Your task to perform on an android device: Open internet settings Image 0: 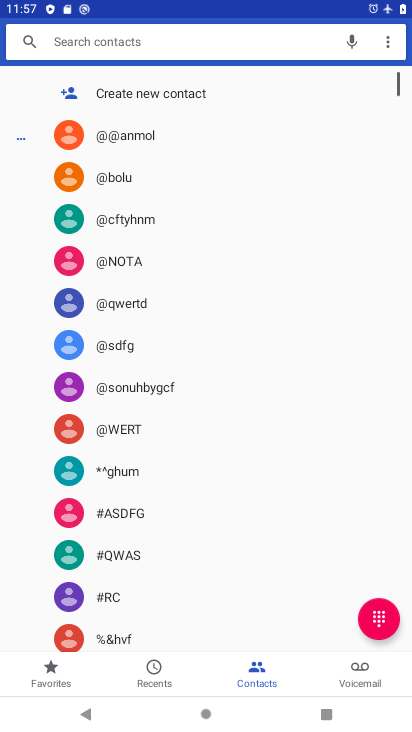
Step 0: press home button
Your task to perform on an android device: Open internet settings Image 1: 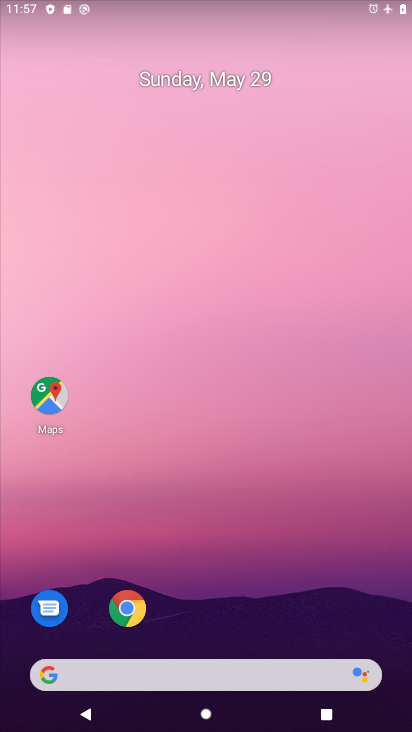
Step 1: drag from (210, 641) to (118, 84)
Your task to perform on an android device: Open internet settings Image 2: 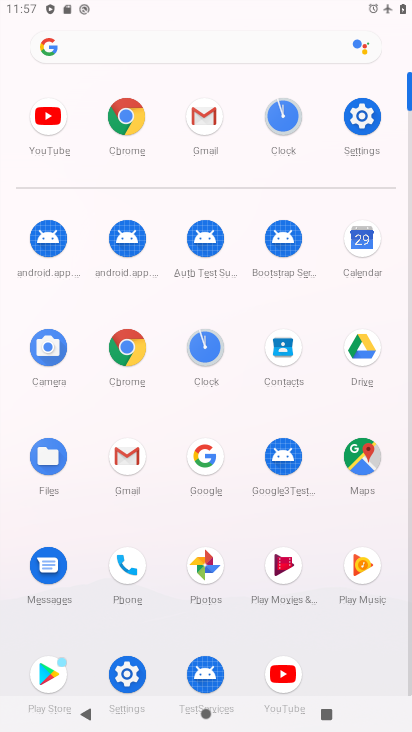
Step 2: click (355, 115)
Your task to perform on an android device: Open internet settings Image 3: 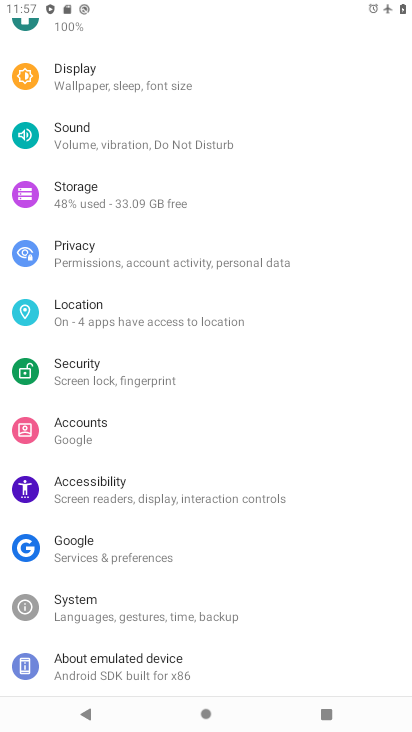
Step 3: drag from (85, 109) to (77, 339)
Your task to perform on an android device: Open internet settings Image 4: 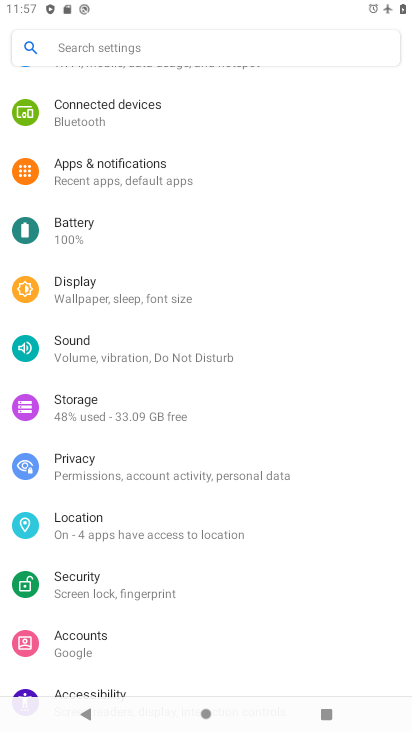
Step 4: drag from (105, 100) to (101, 337)
Your task to perform on an android device: Open internet settings Image 5: 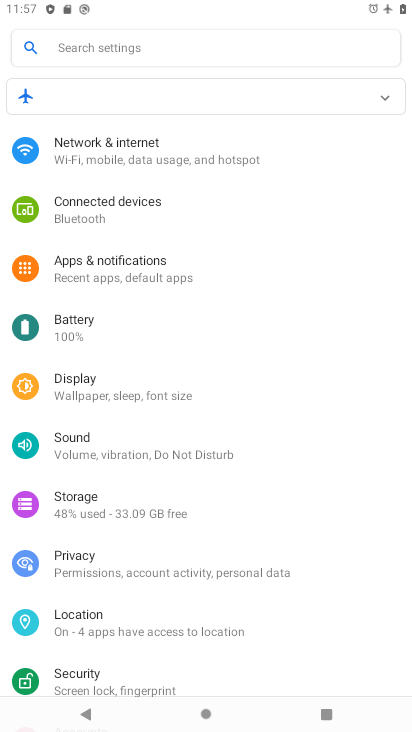
Step 5: click (104, 145)
Your task to perform on an android device: Open internet settings Image 6: 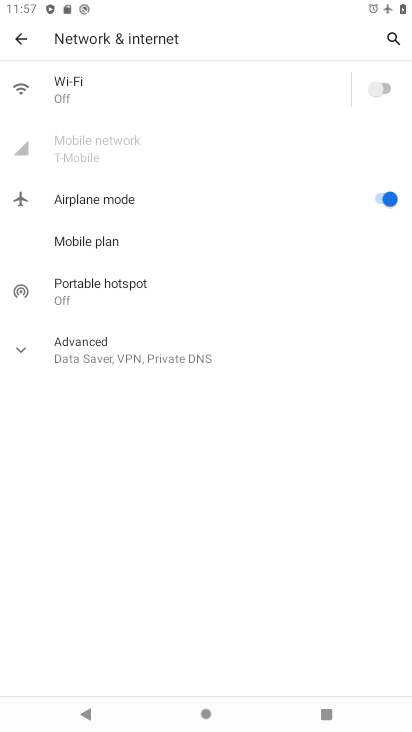
Step 6: task complete